Your task to perform on an android device: turn on improve location accuracy Image 0: 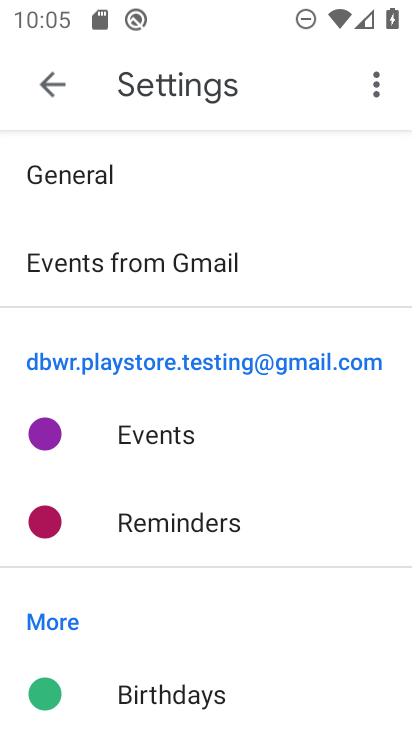
Step 0: press home button
Your task to perform on an android device: turn on improve location accuracy Image 1: 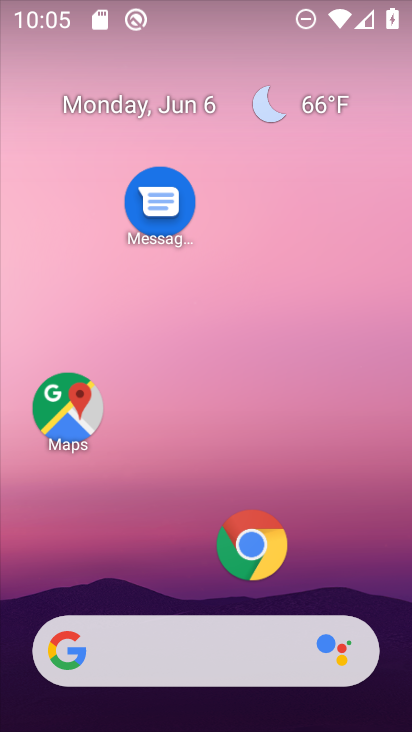
Step 1: drag from (207, 597) to (312, 20)
Your task to perform on an android device: turn on improve location accuracy Image 2: 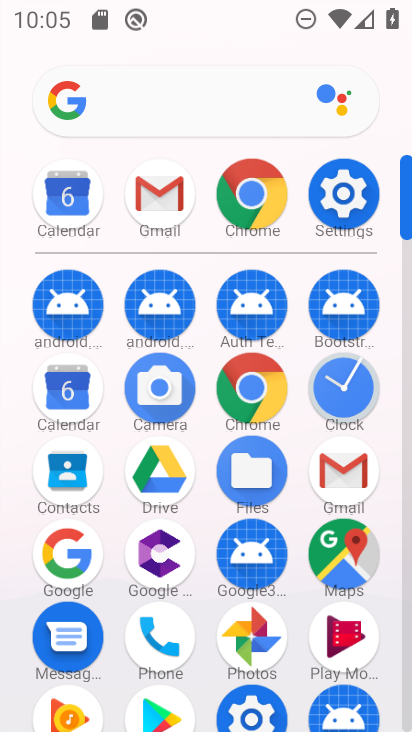
Step 2: click (332, 198)
Your task to perform on an android device: turn on improve location accuracy Image 3: 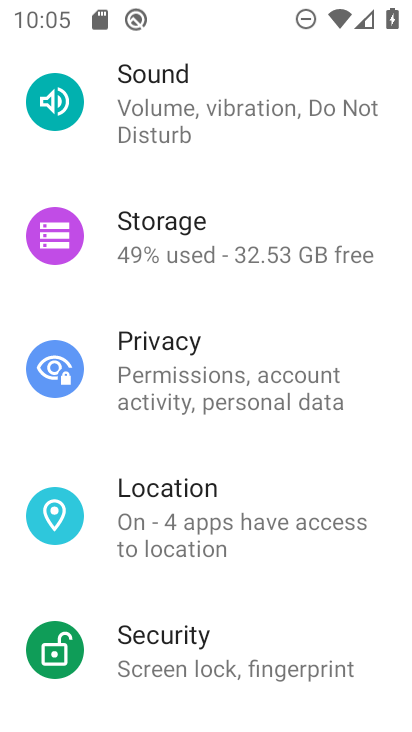
Step 3: click (207, 521)
Your task to perform on an android device: turn on improve location accuracy Image 4: 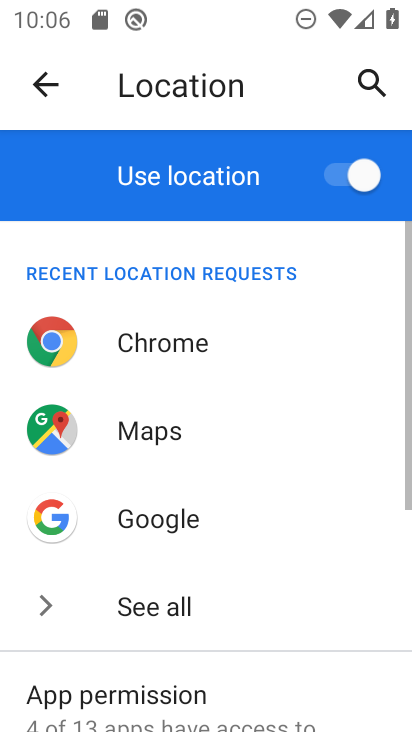
Step 4: drag from (185, 611) to (306, 98)
Your task to perform on an android device: turn on improve location accuracy Image 5: 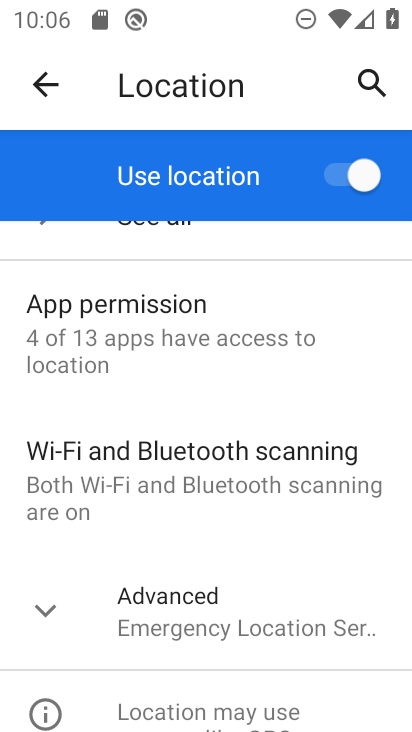
Step 5: click (51, 603)
Your task to perform on an android device: turn on improve location accuracy Image 6: 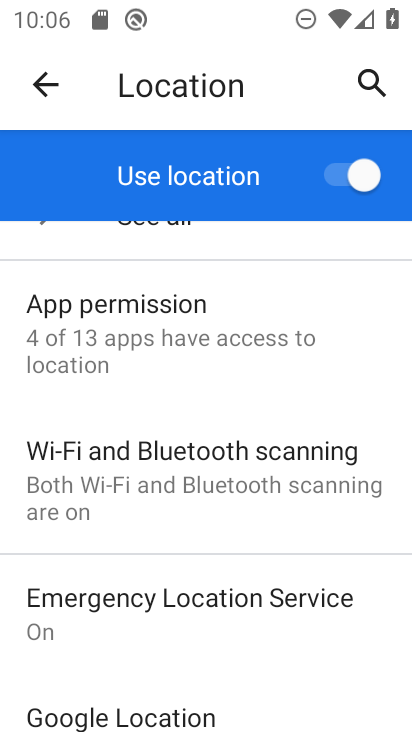
Step 6: task complete